Your task to perform on an android device: Empty the shopping cart on amazon.com. Search for macbook pro on amazon.com, select the first entry, and add it to the cart. Image 0: 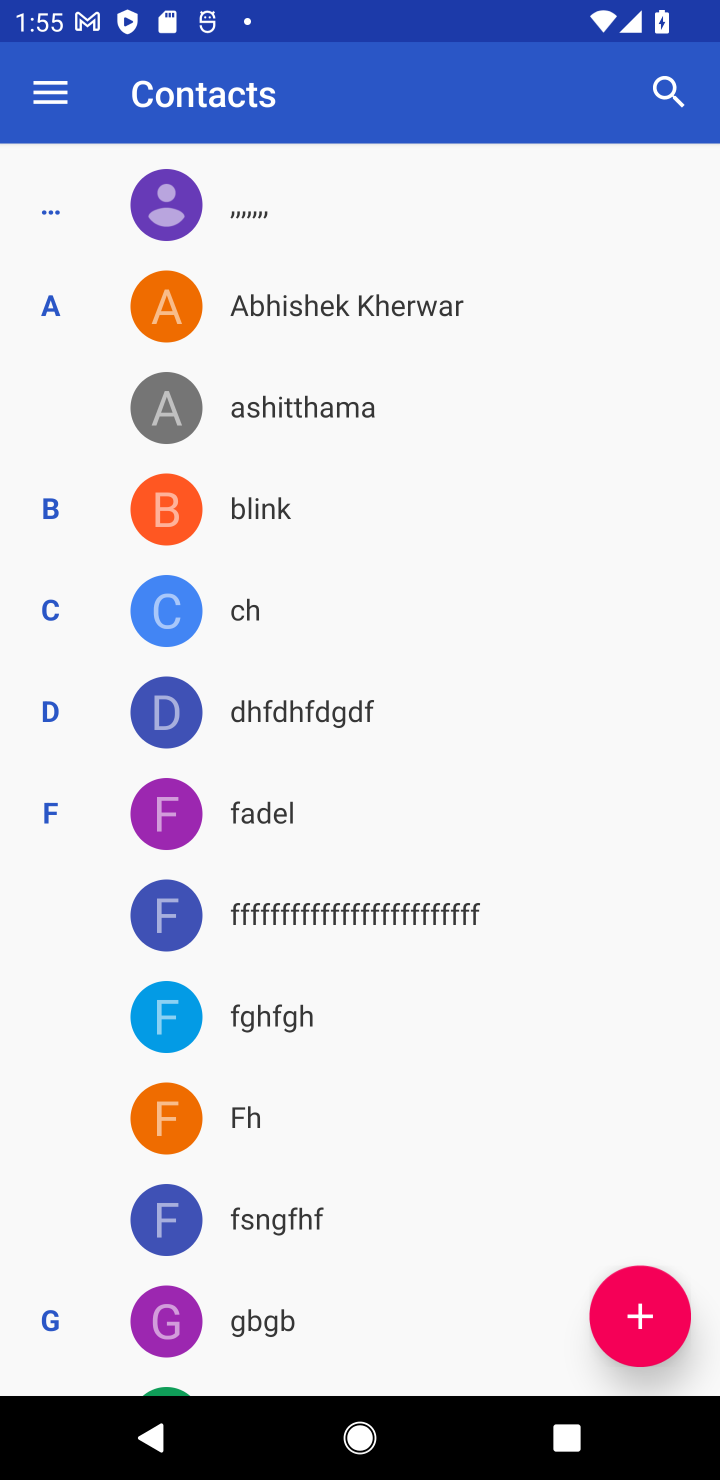
Step 0: press home button
Your task to perform on an android device: Empty the shopping cart on amazon.com. Search for macbook pro on amazon.com, select the first entry, and add it to the cart. Image 1: 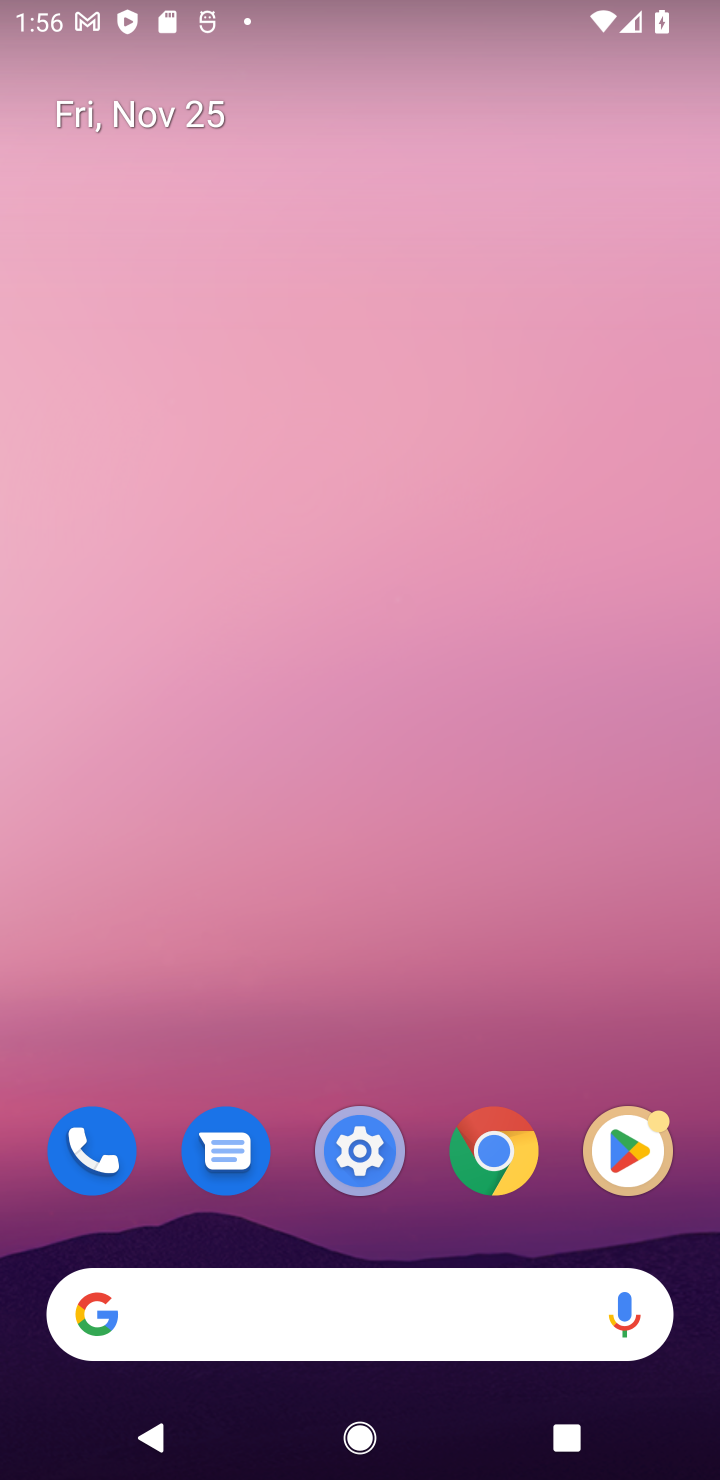
Step 1: click (321, 1314)
Your task to perform on an android device: Empty the shopping cart on amazon.com. Search for macbook pro on amazon.com, select the first entry, and add it to the cart. Image 2: 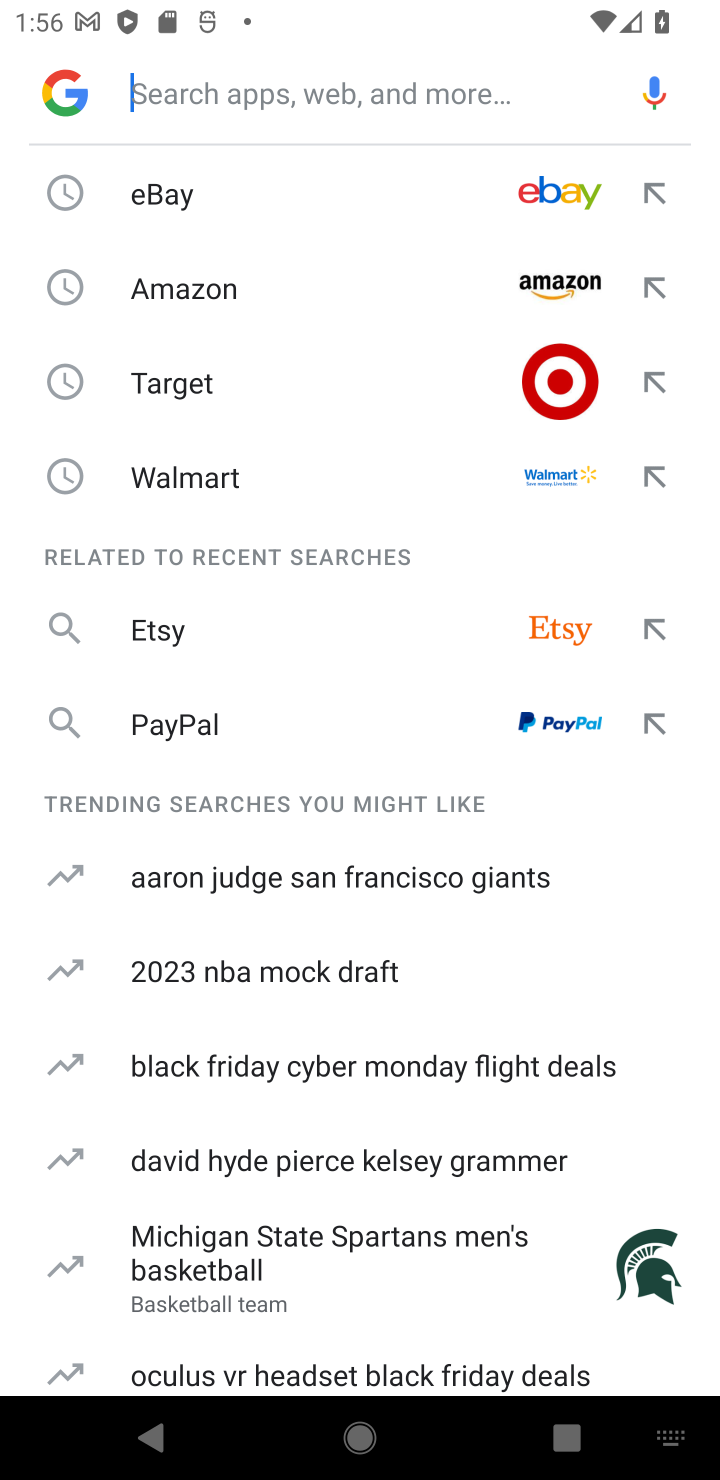
Step 2: click (268, 308)
Your task to perform on an android device: Empty the shopping cart on amazon.com. Search for macbook pro on amazon.com, select the first entry, and add it to the cart. Image 3: 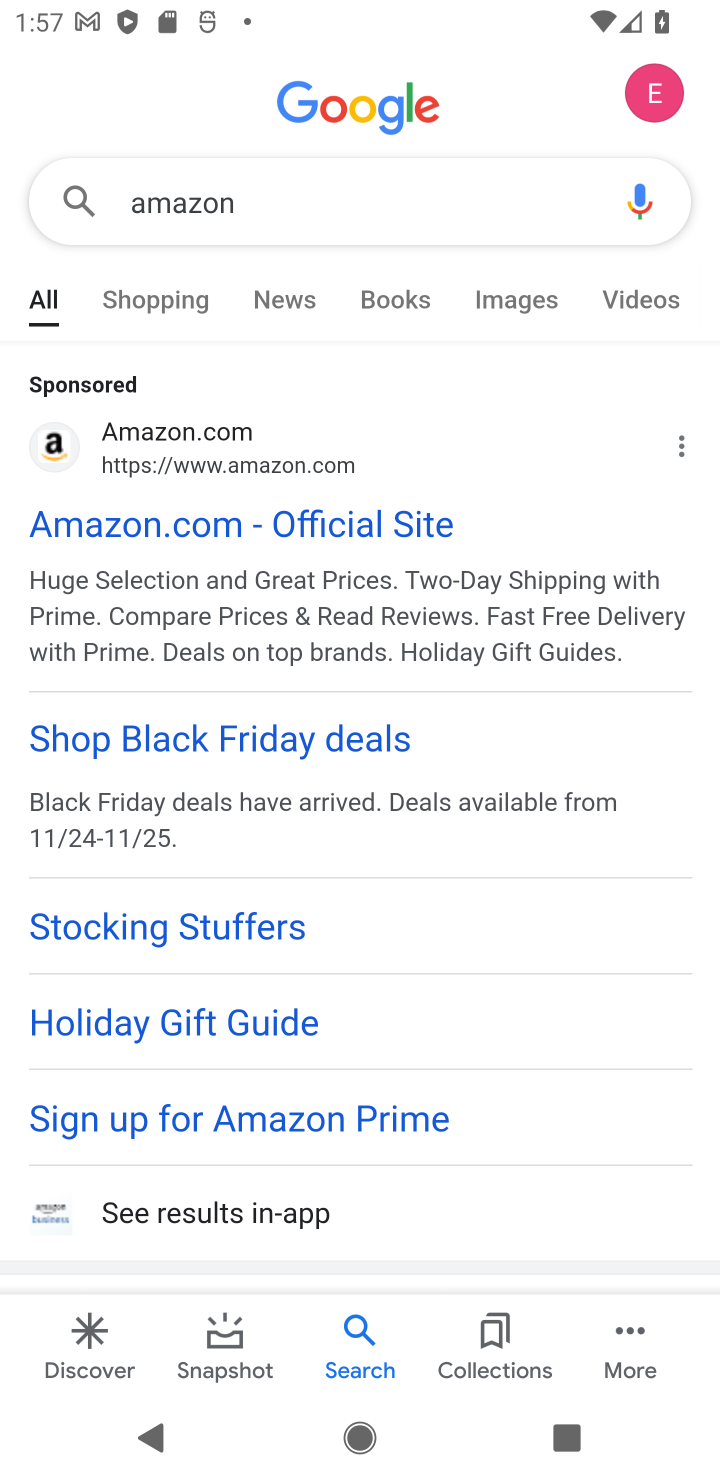
Step 3: click (237, 546)
Your task to perform on an android device: Empty the shopping cart on amazon.com. Search for macbook pro on amazon.com, select the first entry, and add it to the cart. Image 4: 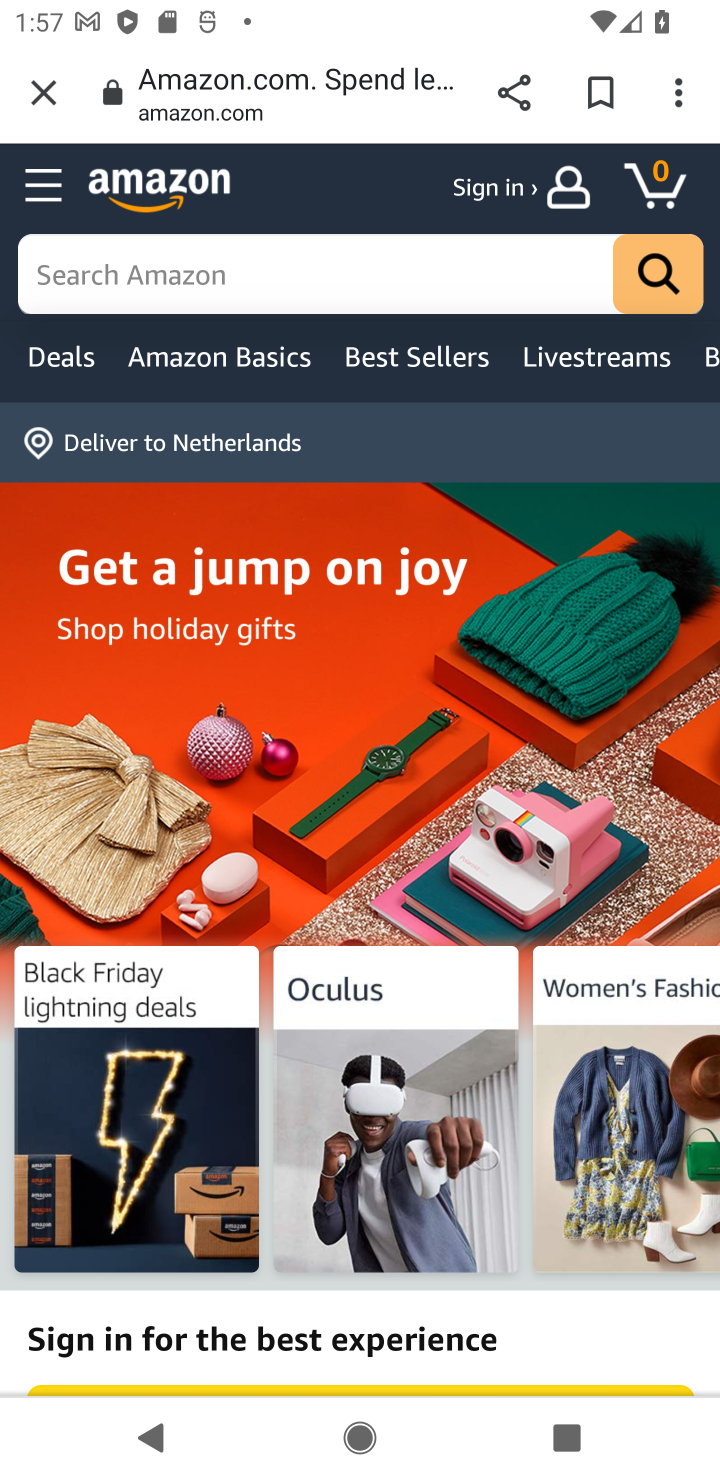
Step 4: task complete